Your task to perform on an android device: Do I have any events today? Image 0: 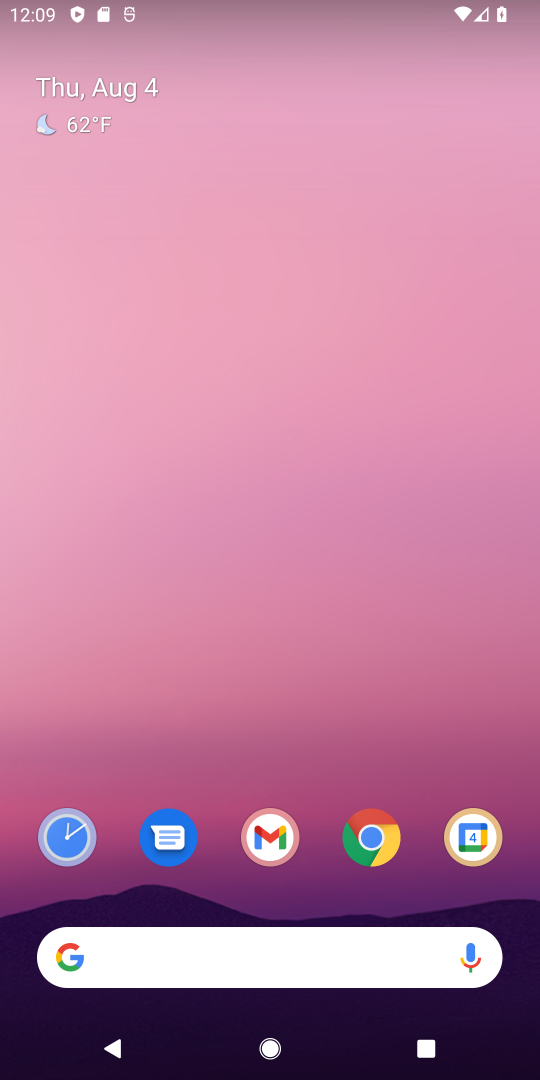
Step 0: drag from (322, 885) to (296, 46)
Your task to perform on an android device: Do I have any events today? Image 1: 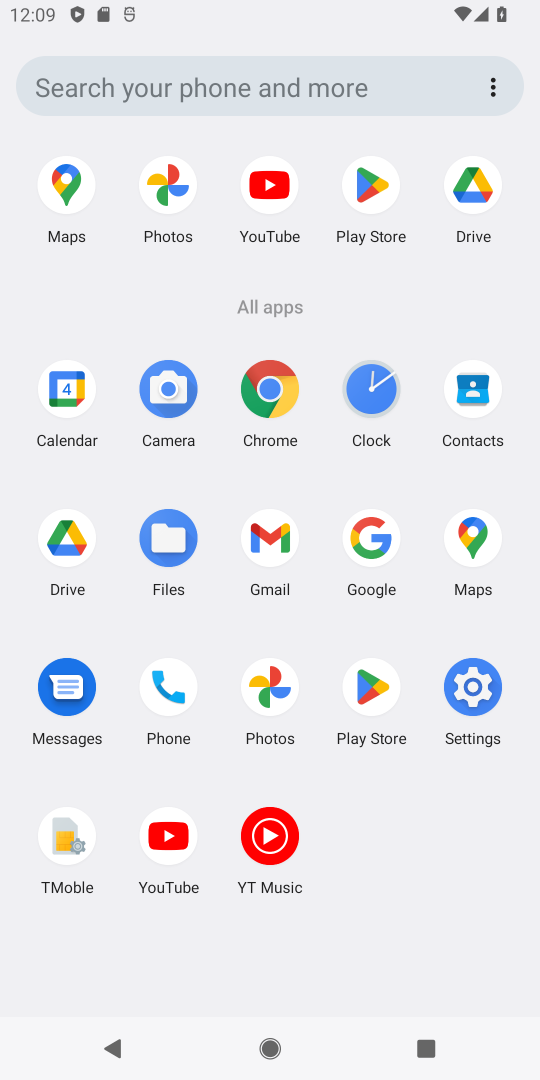
Step 1: click (66, 399)
Your task to perform on an android device: Do I have any events today? Image 2: 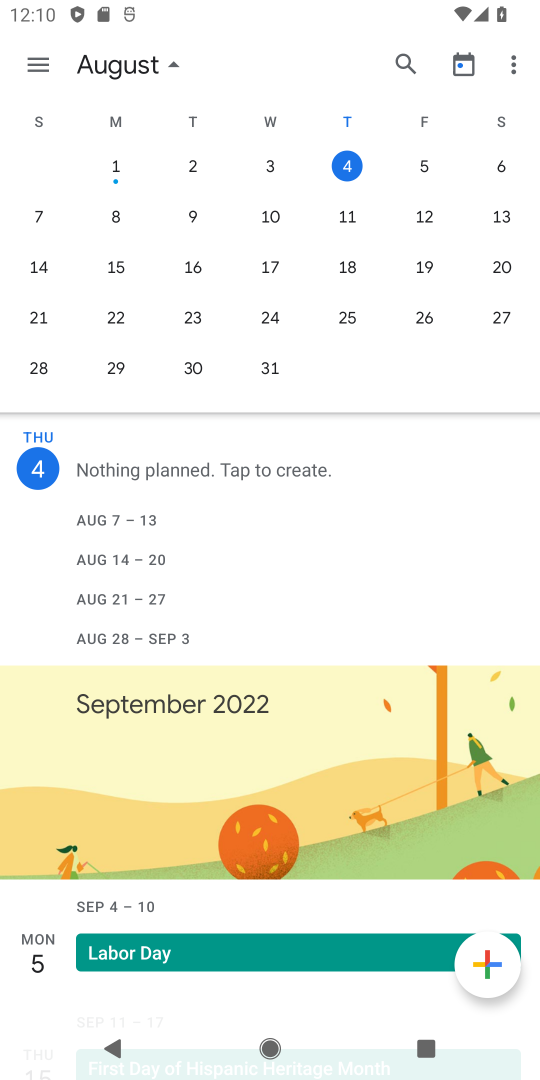
Step 2: task complete